Your task to perform on an android device: Open the web browser Image 0: 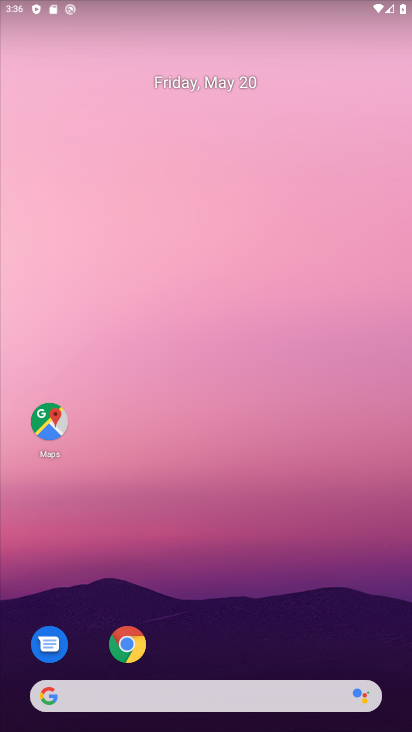
Step 0: click (124, 651)
Your task to perform on an android device: Open the web browser Image 1: 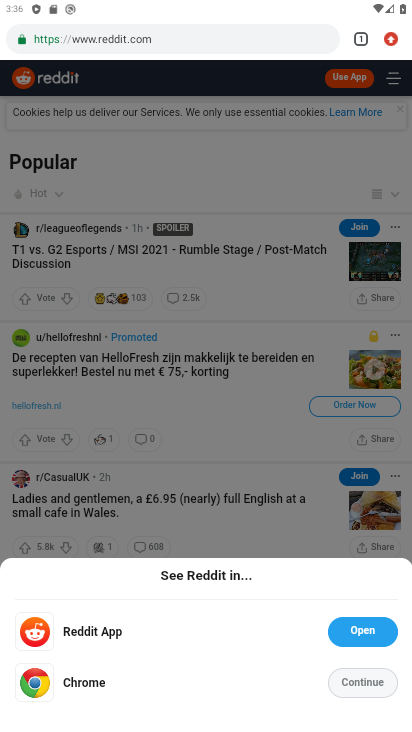
Step 1: task complete